Your task to perform on an android device: turn notification dots on Image 0: 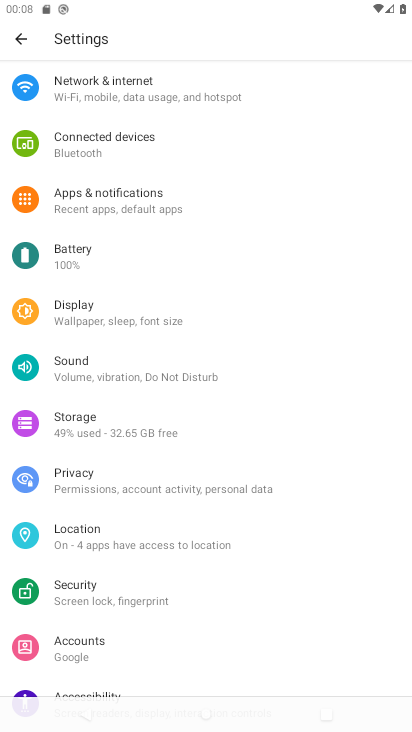
Step 0: drag from (167, 139) to (183, 498)
Your task to perform on an android device: turn notification dots on Image 1: 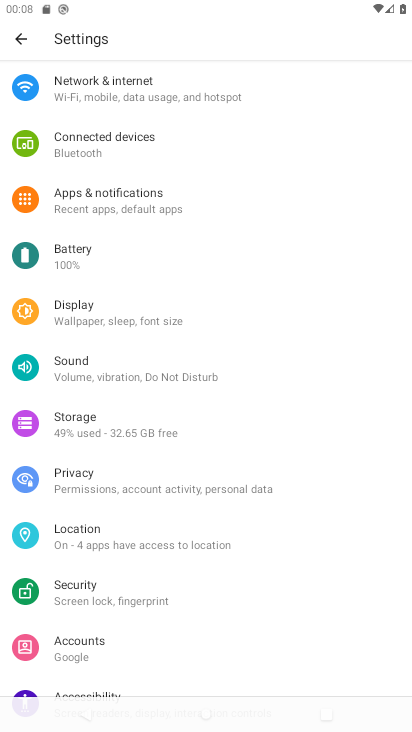
Step 1: drag from (189, 654) to (241, 729)
Your task to perform on an android device: turn notification dots on Image 2: 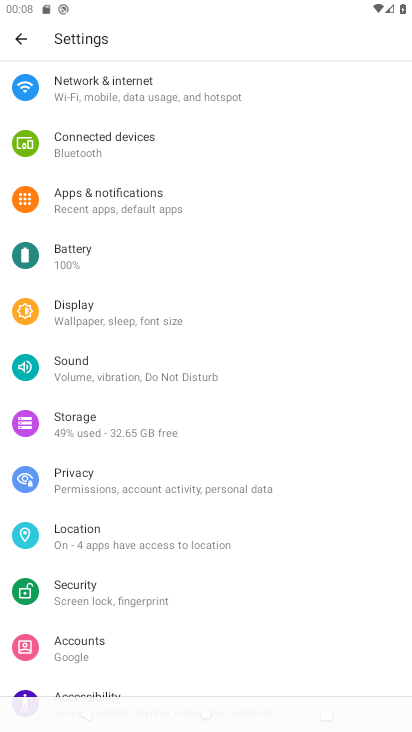
Step 2: click (7, 35)
Your task to perform on an android device: turn notification dots on Image 3: 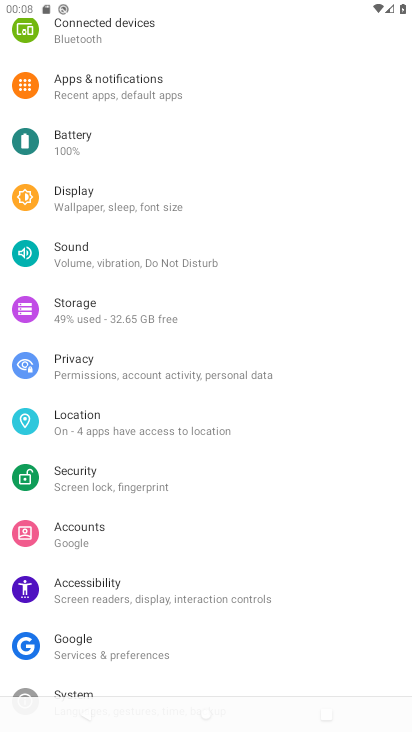
Step 3: drag from (135, 158) to (182, 604)
Your task to perform on an android device: turn notification dots on Image 4: 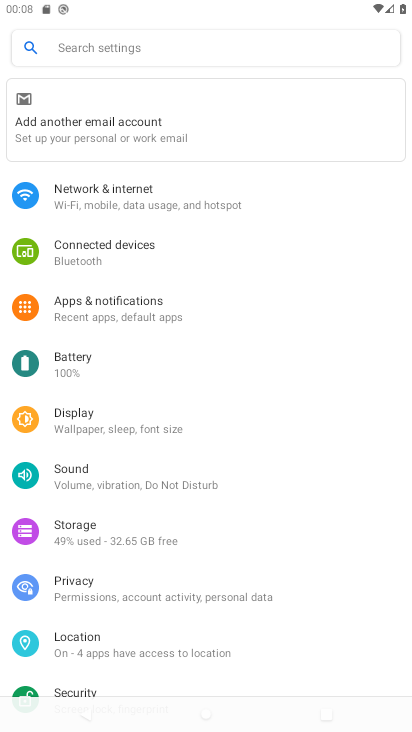
Step 4: click (165, 50)
Your task to perform on an android device: turn notification dots on Image 5: 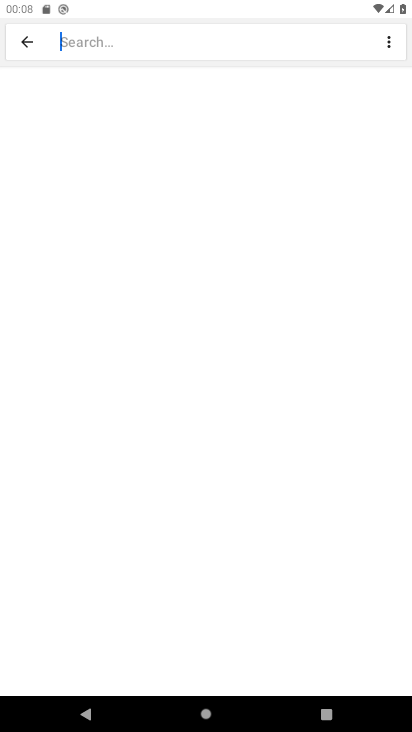
Step 5: type " notification dot "
Your task to perform on an android device: turn notification dots on Image 6: 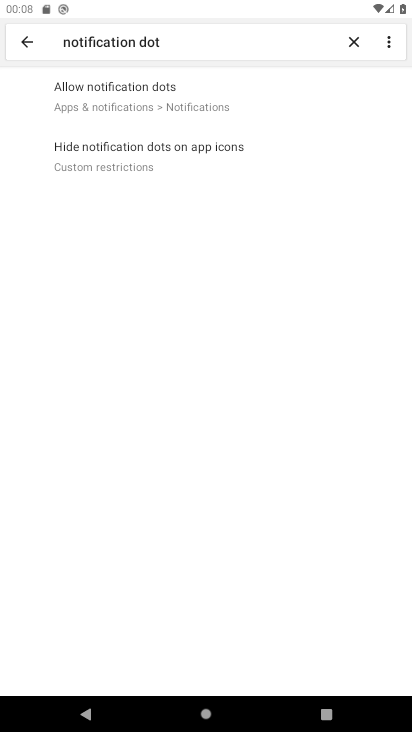
Step 6: click (98, 78)
Your task to perform on an android device: turn notification dots on Image 7: 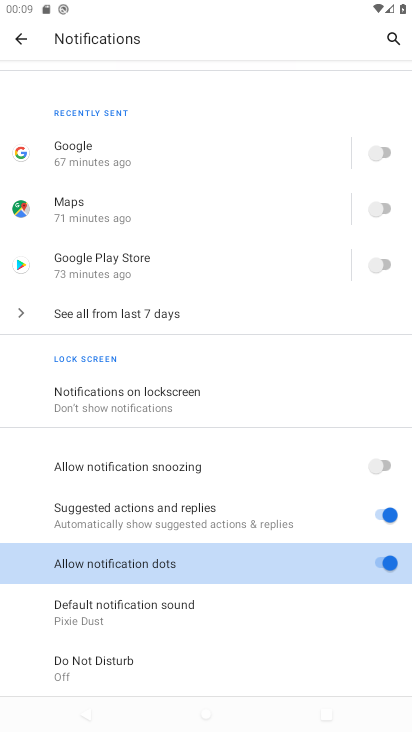
Step 7: task complete